Your task to perform on an android device: open a bookmark in the chrome app Image 0: 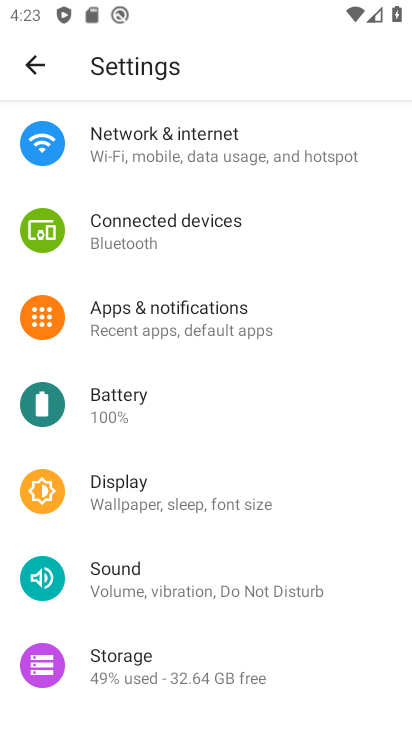
Step 0: drag from (277, 519) to (292, 164)
Your task to perform on an android device: open a bookmark in the chrome app Image 1: 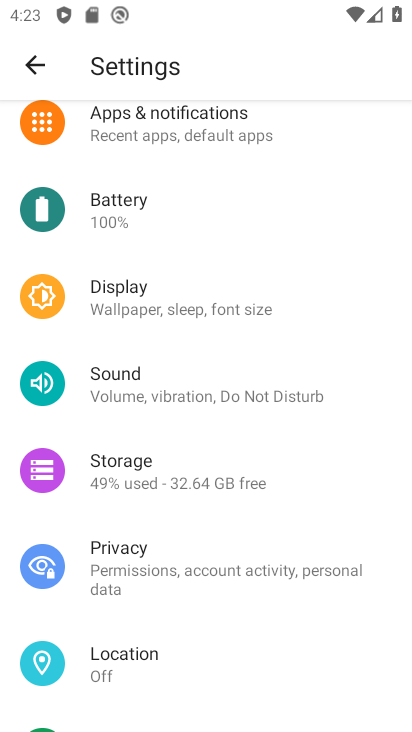
Step 1: drag from (310, 180) to (293, 564)
Your task to perform on an android device: open a bookmark in the chrome app Image 2: 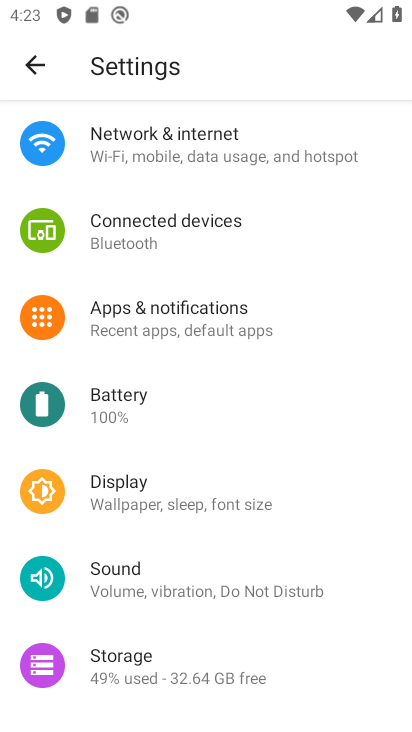
Step 2: press back button
Your task to perform on an android device: open a bookmark in the chrome app Image 3: 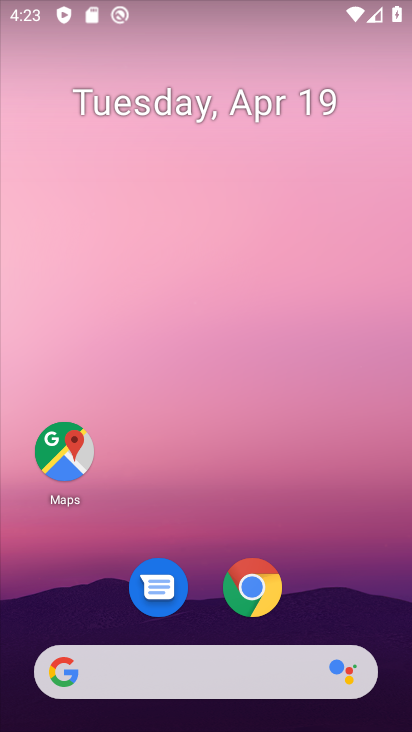
Step 3: click (263, 593)
Your task to perform on an android device: open a bookmark in the chrome app Image 4: 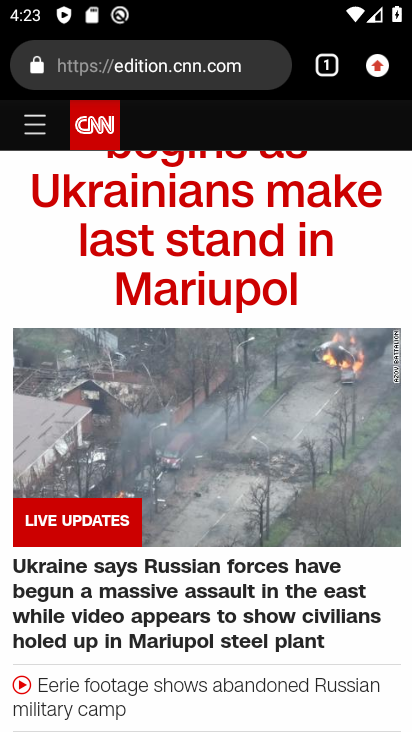
Step 4: task complete